Your task to perform on an android device: show emergency info Image 0: 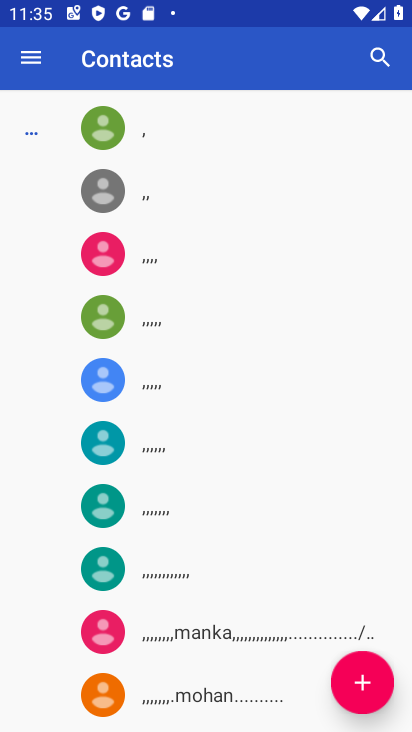
Step 0: press home button
Your task to perform on an android device: show emergency info Image 1: 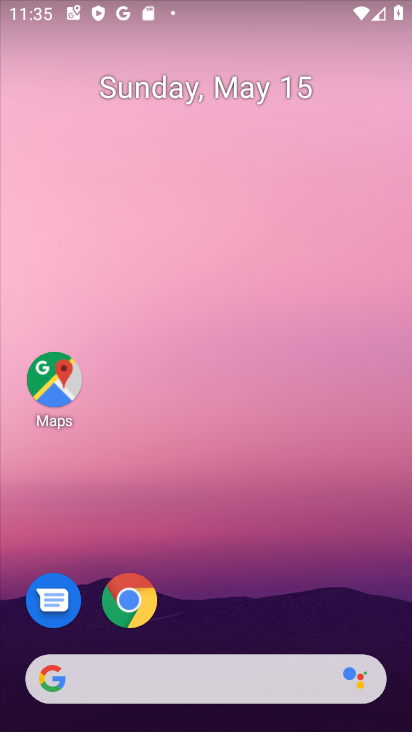
Step 1: drag from (185, 669) to (281, 111)
Your task to perform on an android device: show emergency info Image 2: 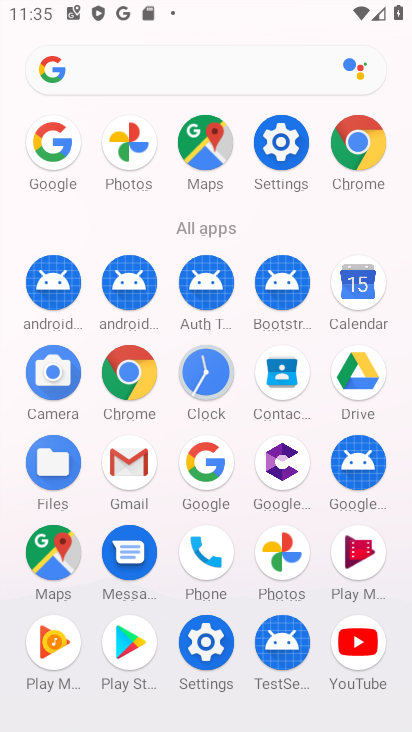
Step 2: click (277, 143)
Your task to perform on an android device: show emergency info Image 3: 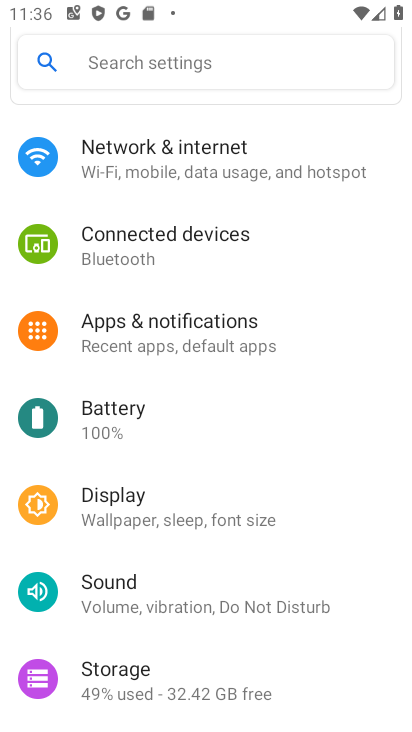
Step 3: drag from (166, 554) to (168, 84)
Your task to perform on an android device: show emergency info Image 4: 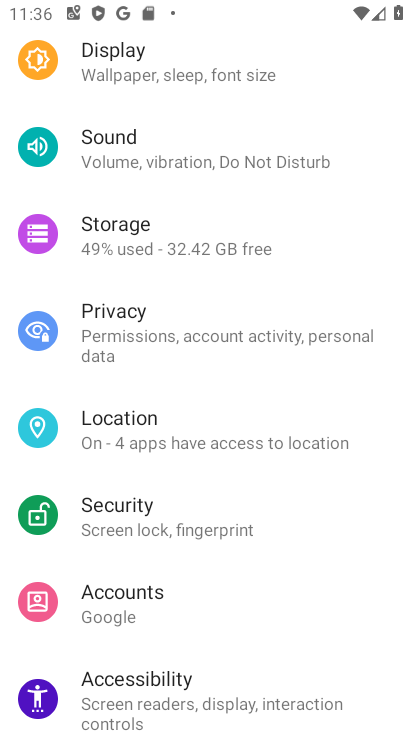
Step 4: drag from (152, 89) to (118, 395)
Your task to perform on an android device: show emergency info Image 5: 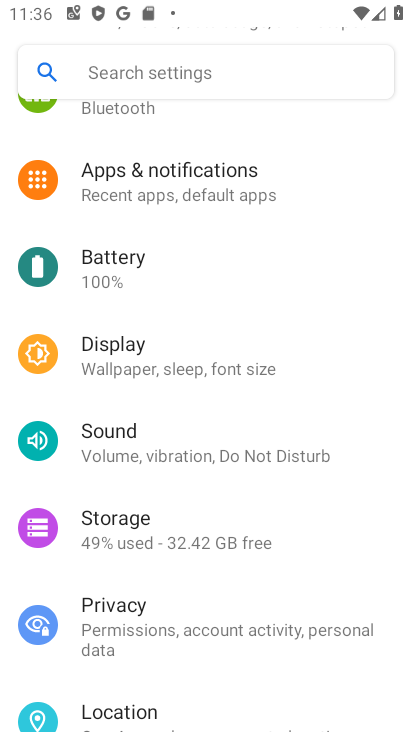
Step 5: drag from (177, 543) to (0, 14)
Your task to perform on an android device: show emergency info Image 6: 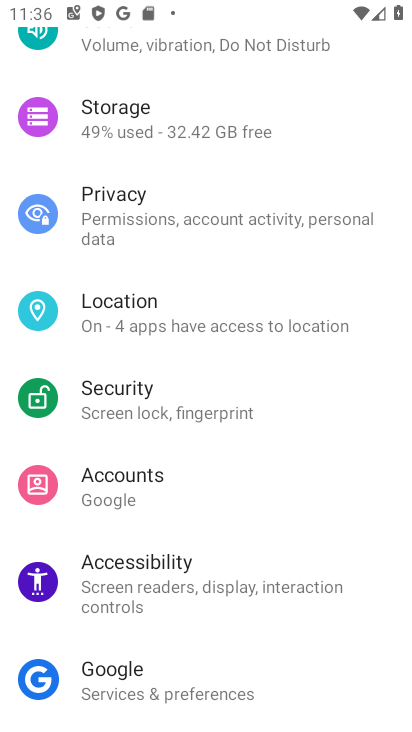
Step 6: drag from (258, 648) to (373, 224)
Your task to perform on an android device: show emergency info Image 7: 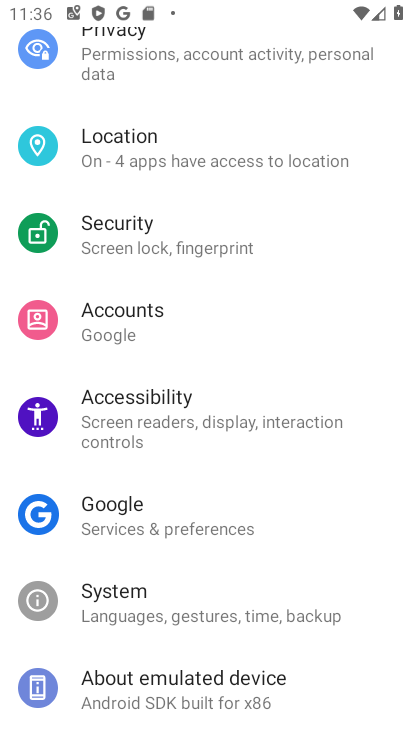
Step 7: click (249, 674)
Your task to perform on an android device: show emergency info Image 8: 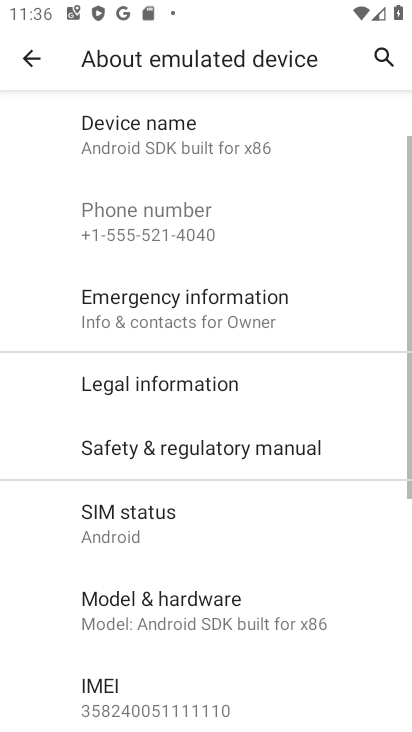
Step 8: click (182, 314)
Your task to perform on an android device: show emergency info Image 9: 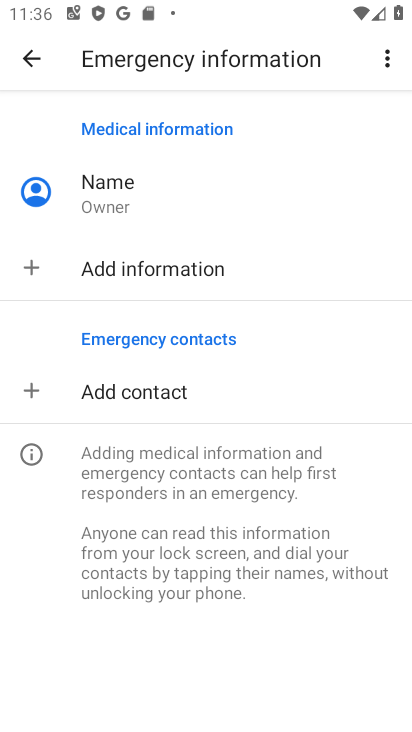
Step 9: task complete